Your task to perform on an android device: manage bookmarks in the chrome app Image 0: 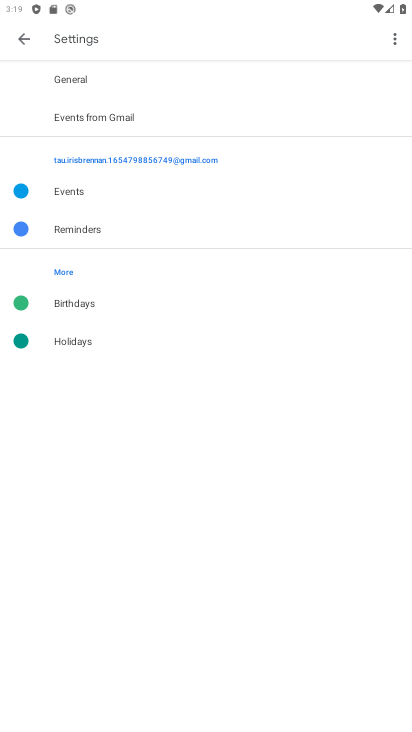
Step 0: press back button
Your task to perform on an android device: manage bookmarks in the chrome app Image 1: 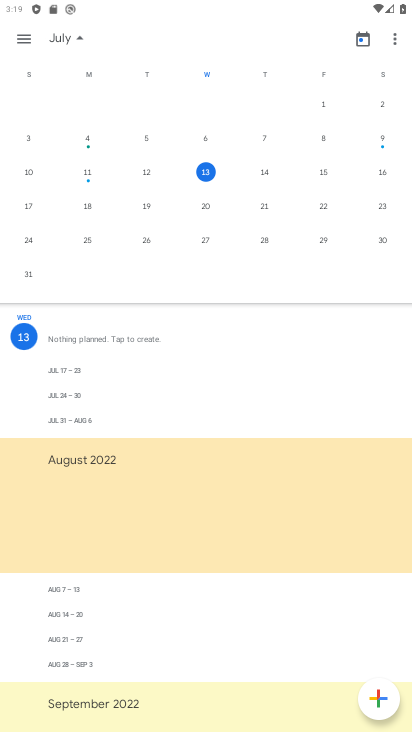
Step 1: press back button
Your task to perform on an android device: manage bookmarks in the chrome app Image 2: 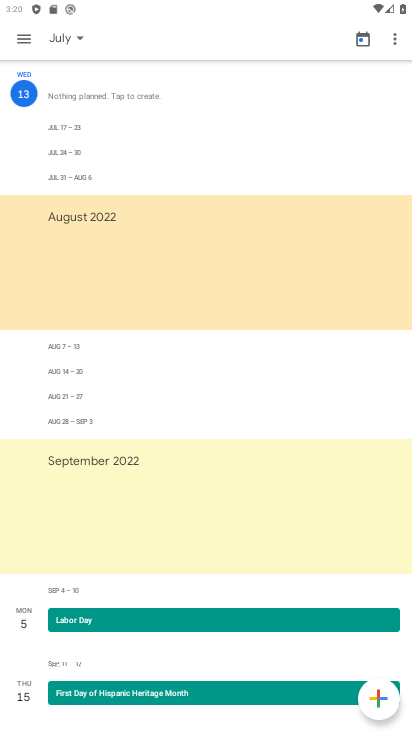
Step 2: press back button
Your task to perform on an android device: manage bookmarks in the chrome app Image 3: 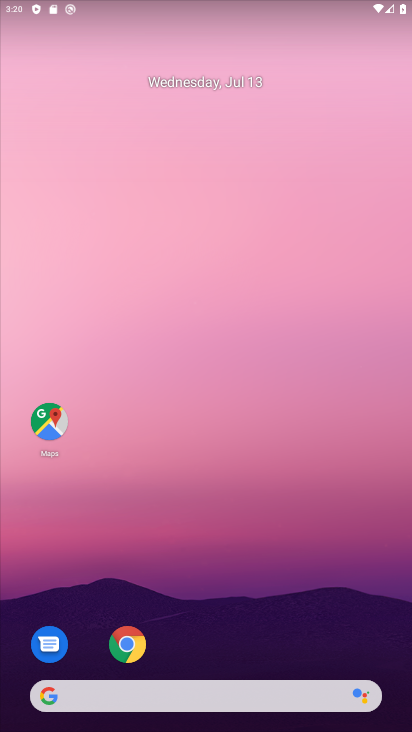
Step 3: click (123, 650)
Your task to perform on an android device: manage bookmarks in the chrome app Image 4: 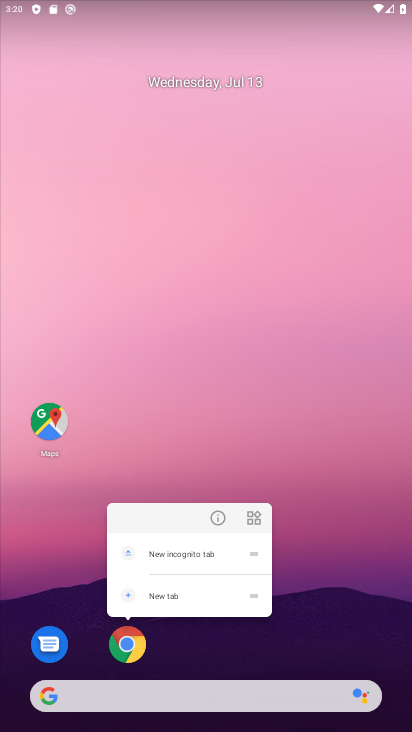
Step 4: click (131, 645)
Your task to perform on an android device: manage bookmarks in the chrome app Image 5: 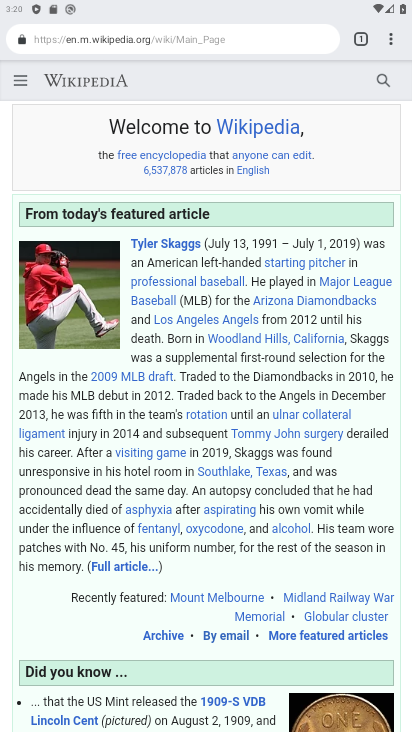
Step 5: drag from (401, 37) to (249, 146)
Your task to perform on an android device: manage bookmarks in the chrome app Image 6: 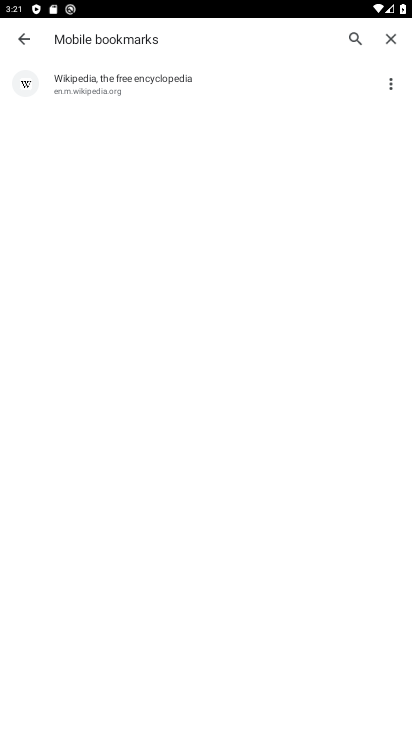
Step 6: click (388, 76)
Your task to perform on an android device: manage bookmarks in the chrome app Image 7: 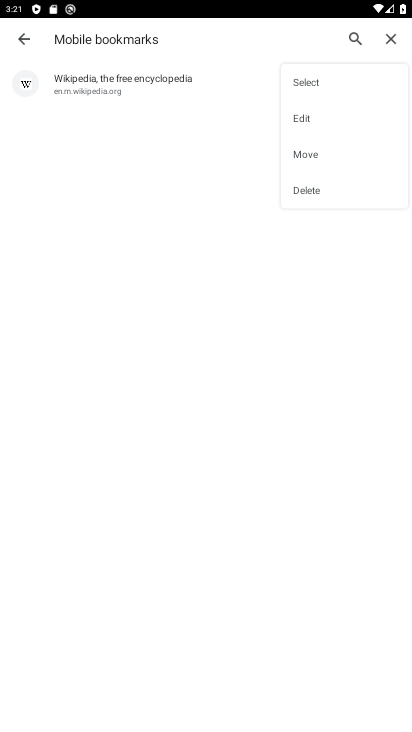
Step 7: click (319, 185)
Your task to perform on an android device: manage bookmarks in the chrome app Image 8: 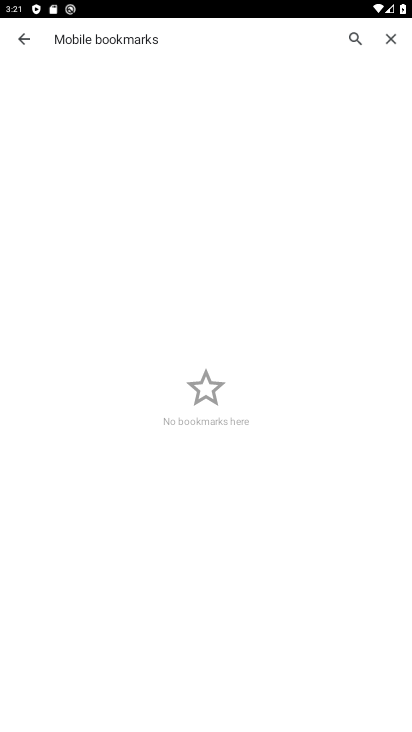
Step 8: task complete